Your task to perform on an android device: install app "Venmo" Image 0: 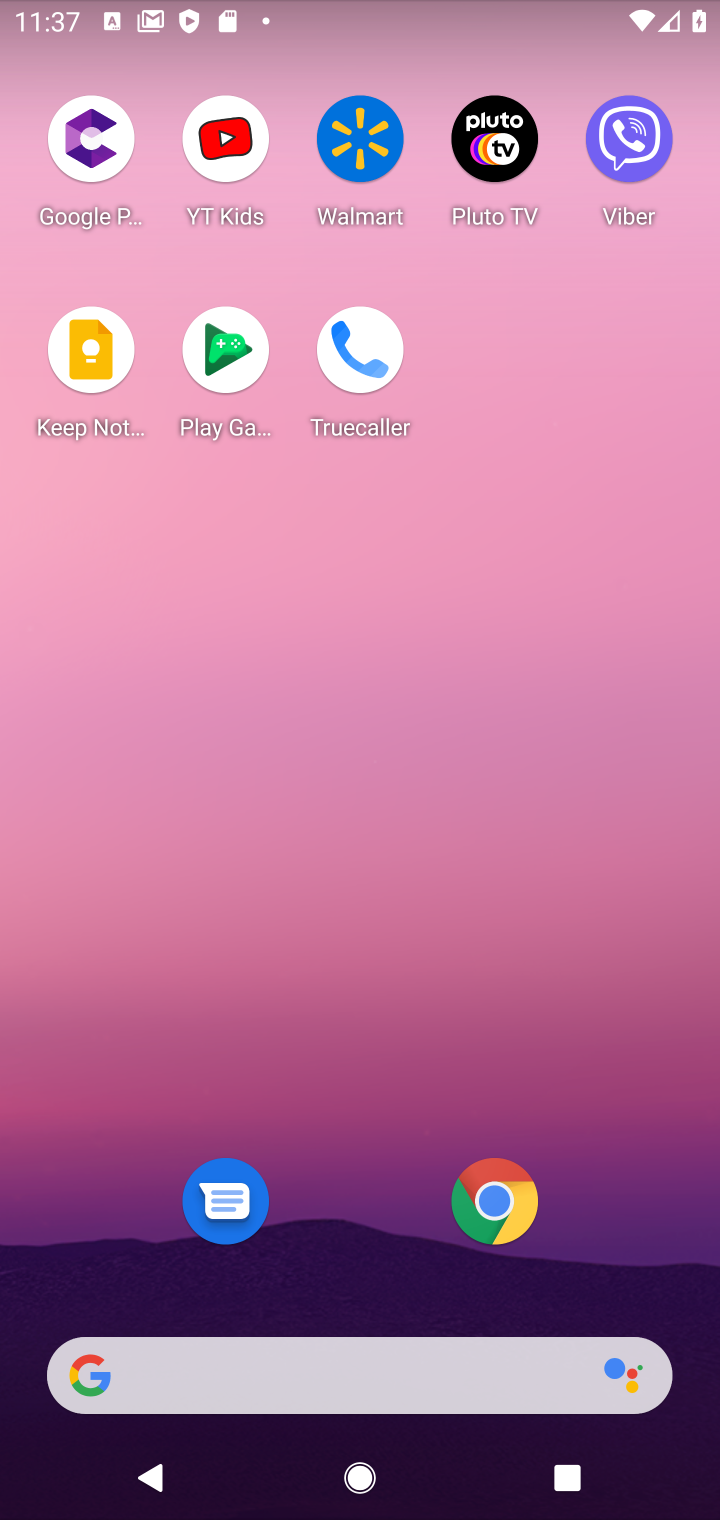
Step 0: drag from (323, 935) to (27, 59)
Your task to perform on an android device: install app "Venmo" Image 1: 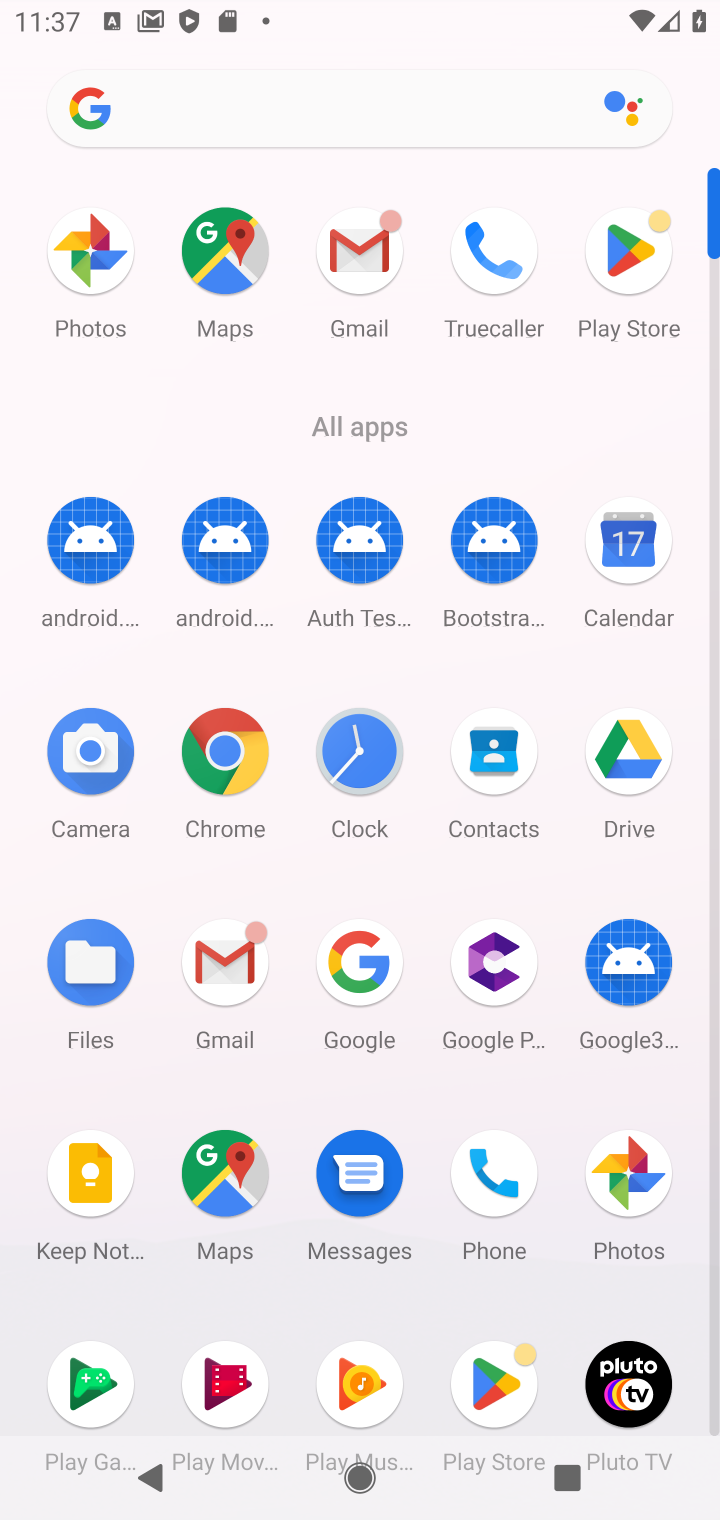
Step 1: click (630, 272)
Your task to perform on an android device: install app "Venmo" Image 2: 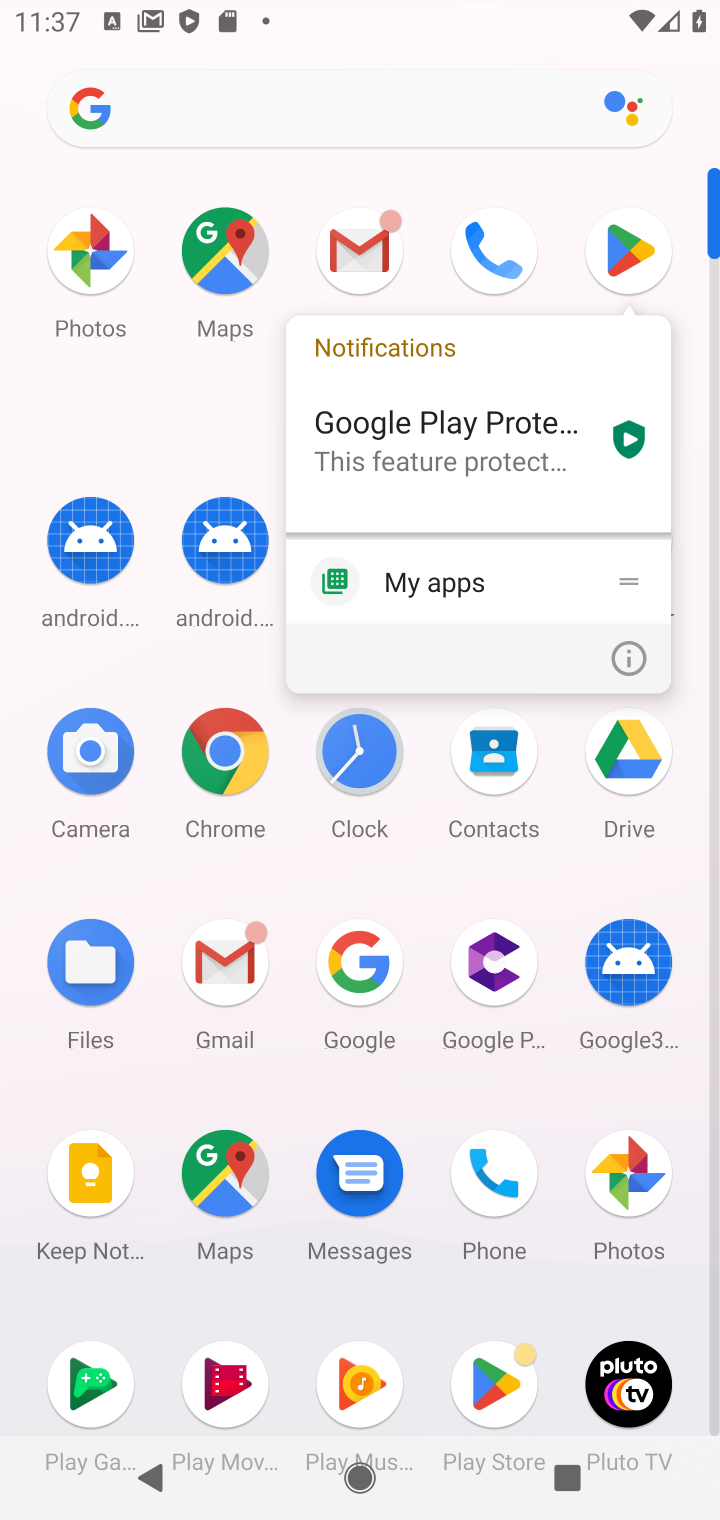
Step 2: click (624, 267)
Your task to perform on an android device: install app "Venmo" Image 3: 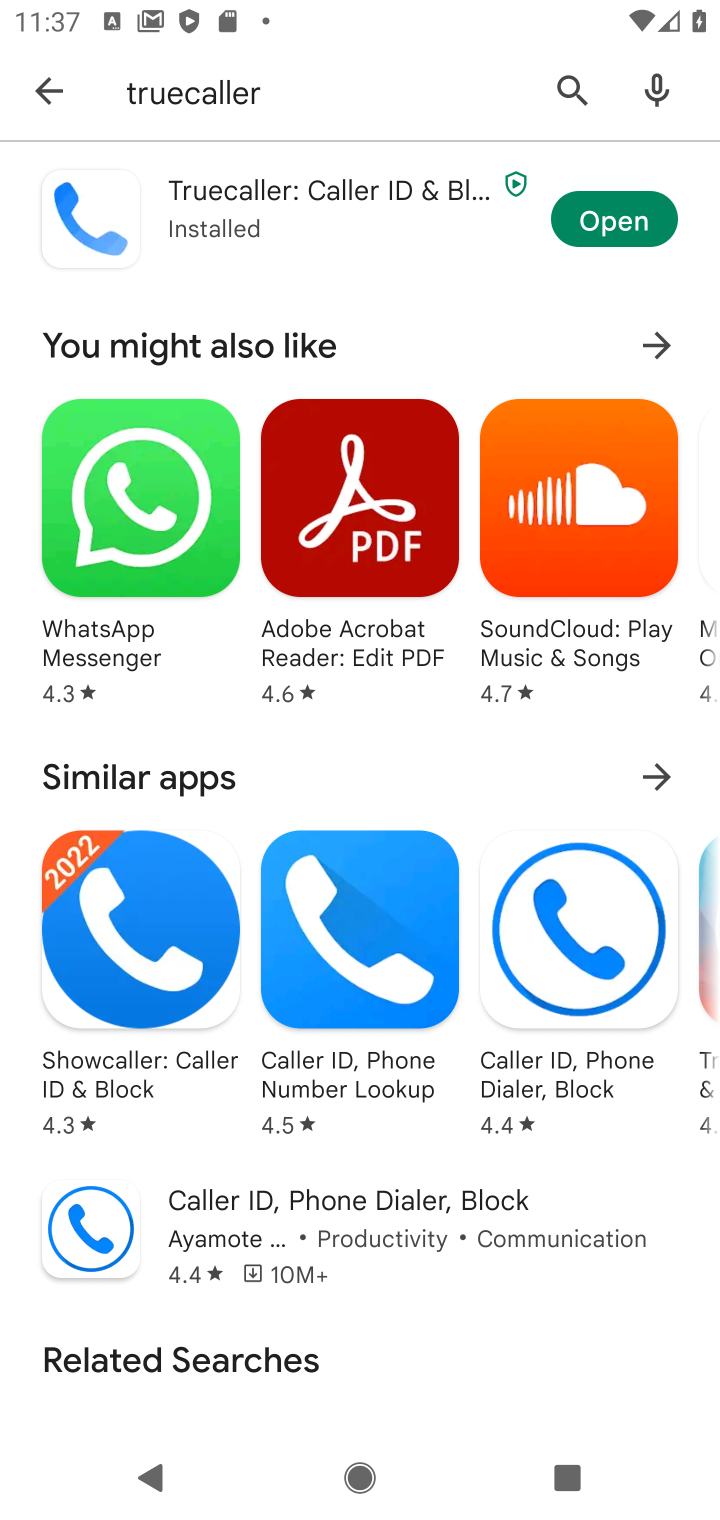
Step 3: click (624, 267)
Your task to perform on an android device: install app "Venmo" Image 4: 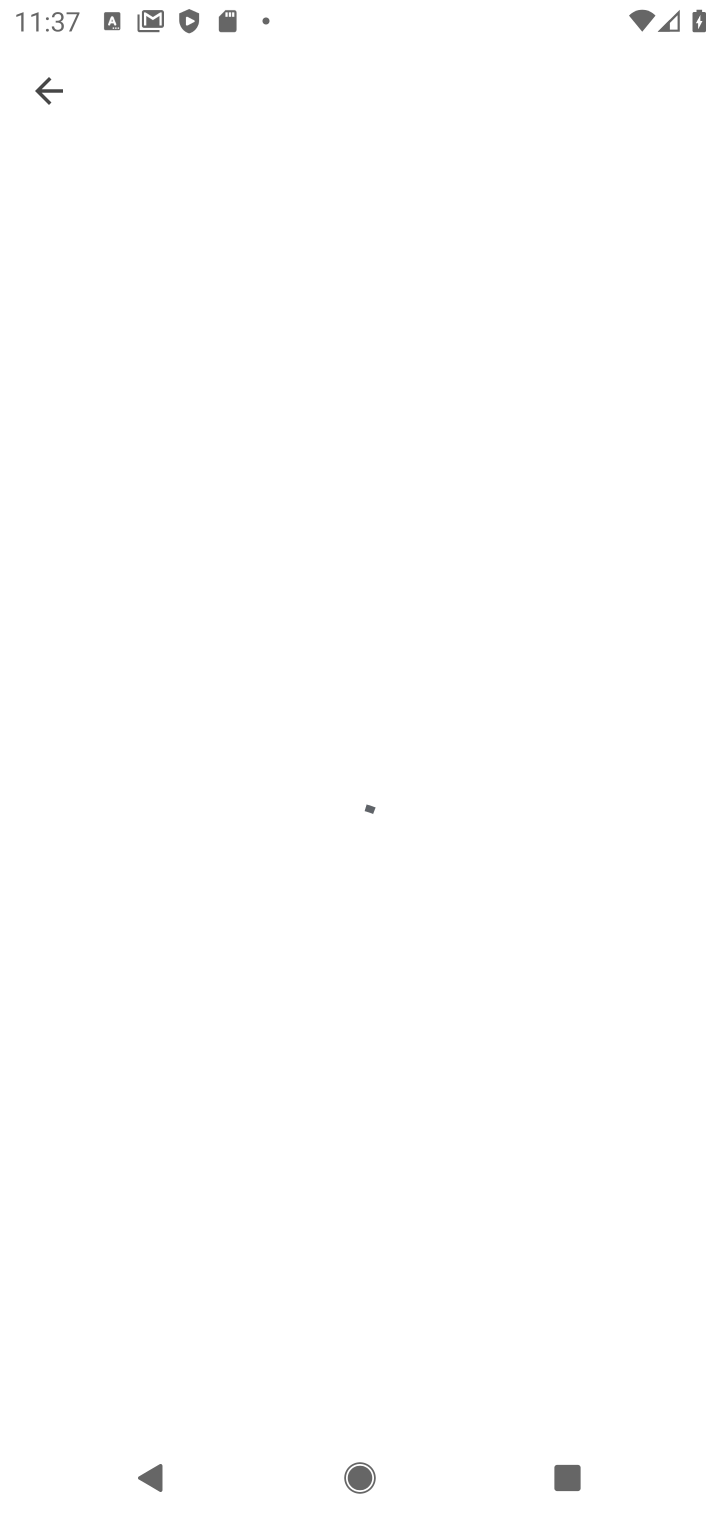
Step 4: click (282, 122)
Your task to perform on an android device: install app "Venmo" Image 5: 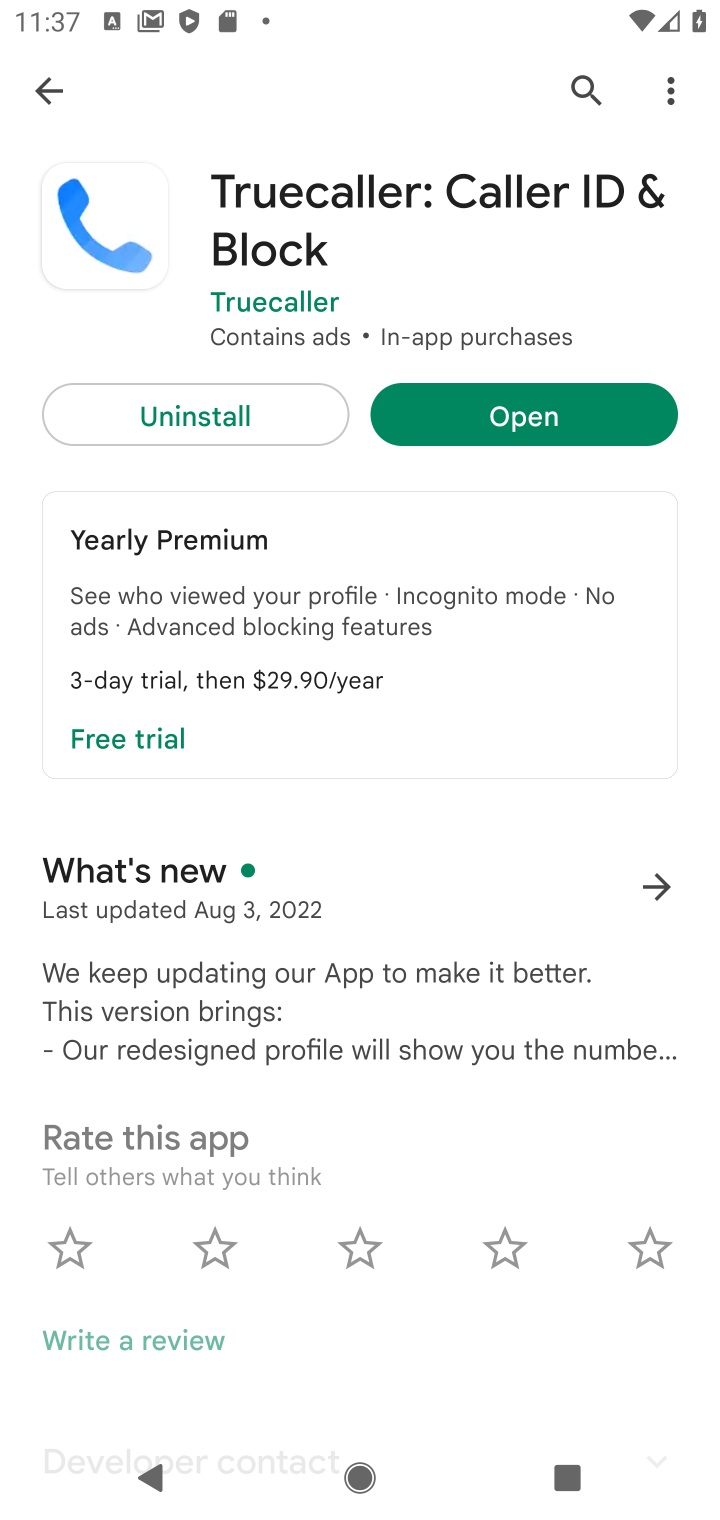
Step 5: click (37, 81)
Your task to perform on an android device: install app "Venmo" Image 6: 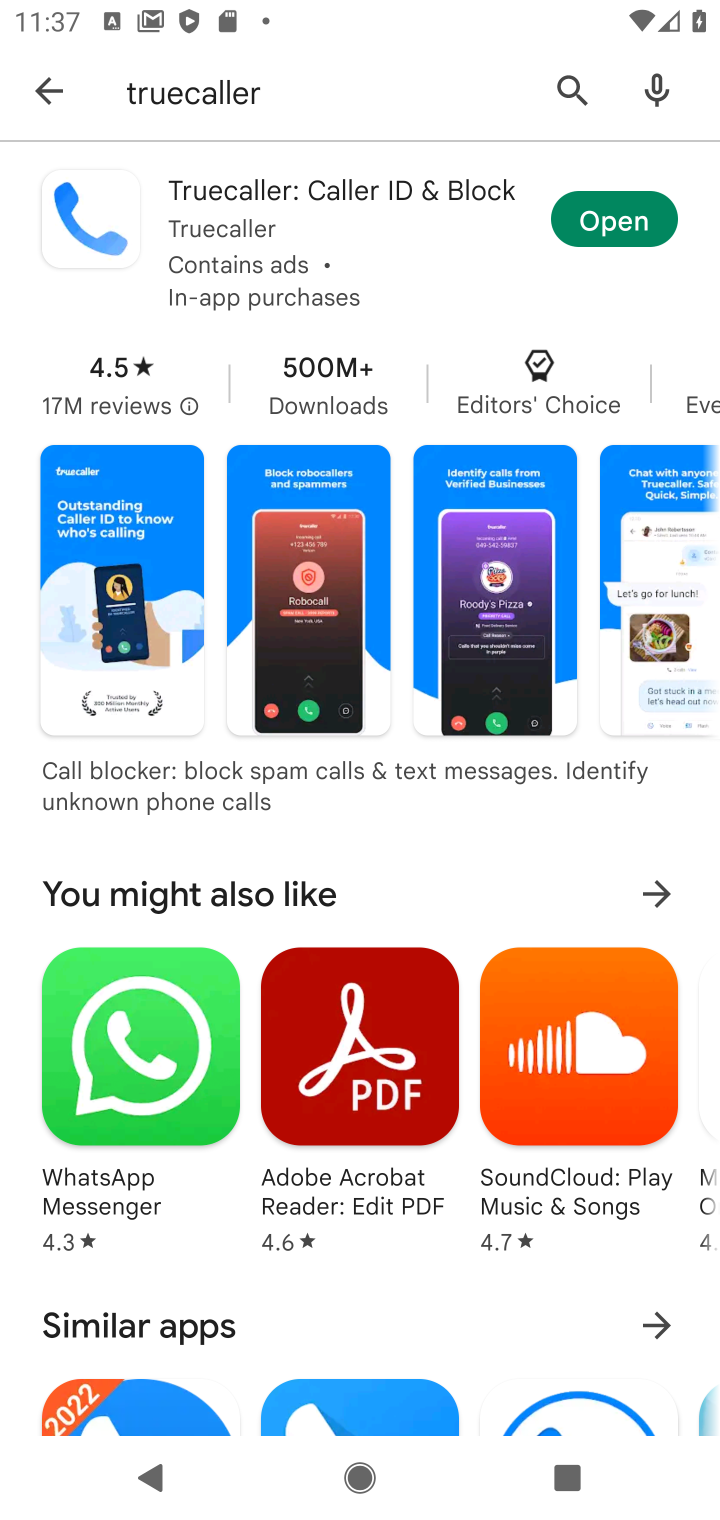
Step 6: click (296, 84)
Your task to perform on an android device: install app "Venmo" Image 7: 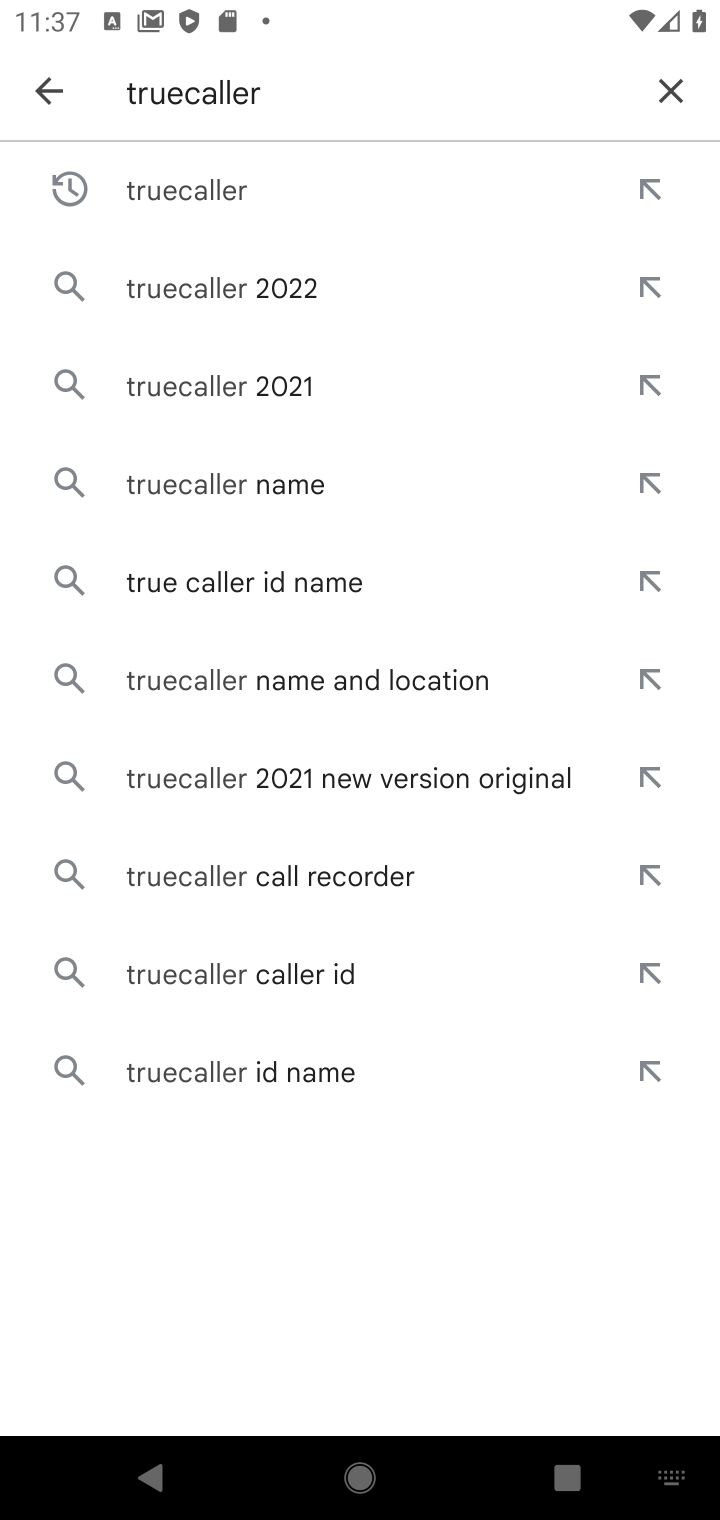
Step 7: click (673, 82)
Your task to perform on an android device: install app "Venmo" Image 8: 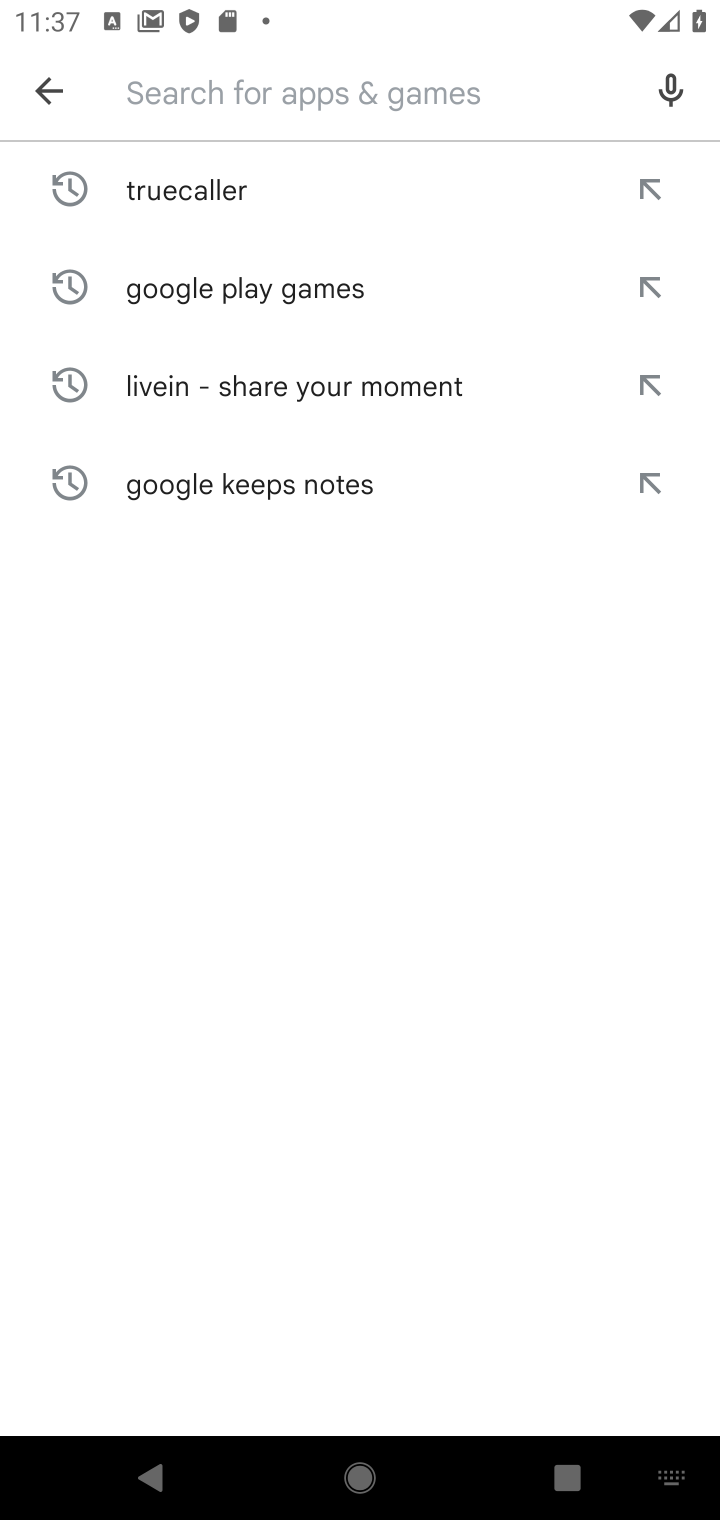
Step 8: type "Venmo"
Your task to perform on an android device: install app "Venmo" Image 9: 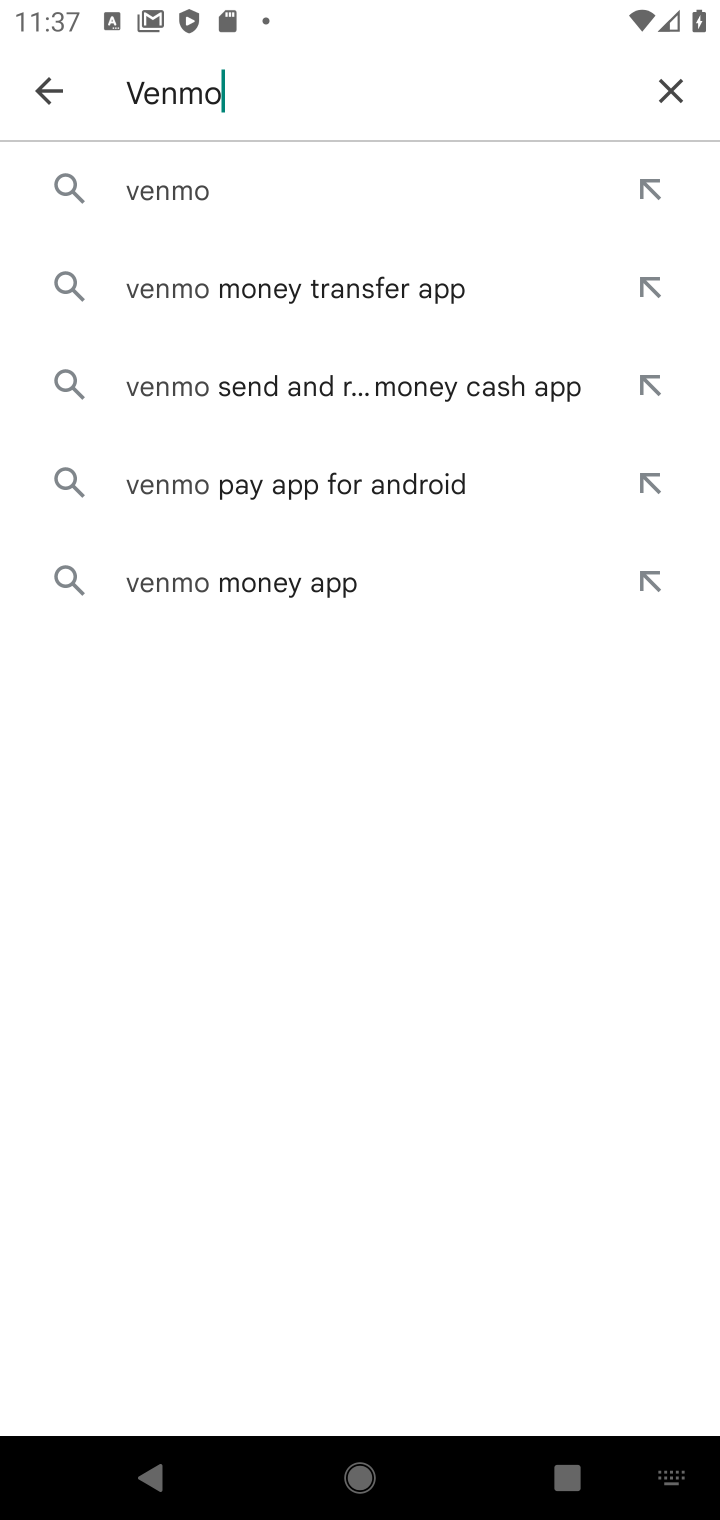
Step 9: click (155, 187)
Your task to perform on an android device: install app "Venmo" Image 10: 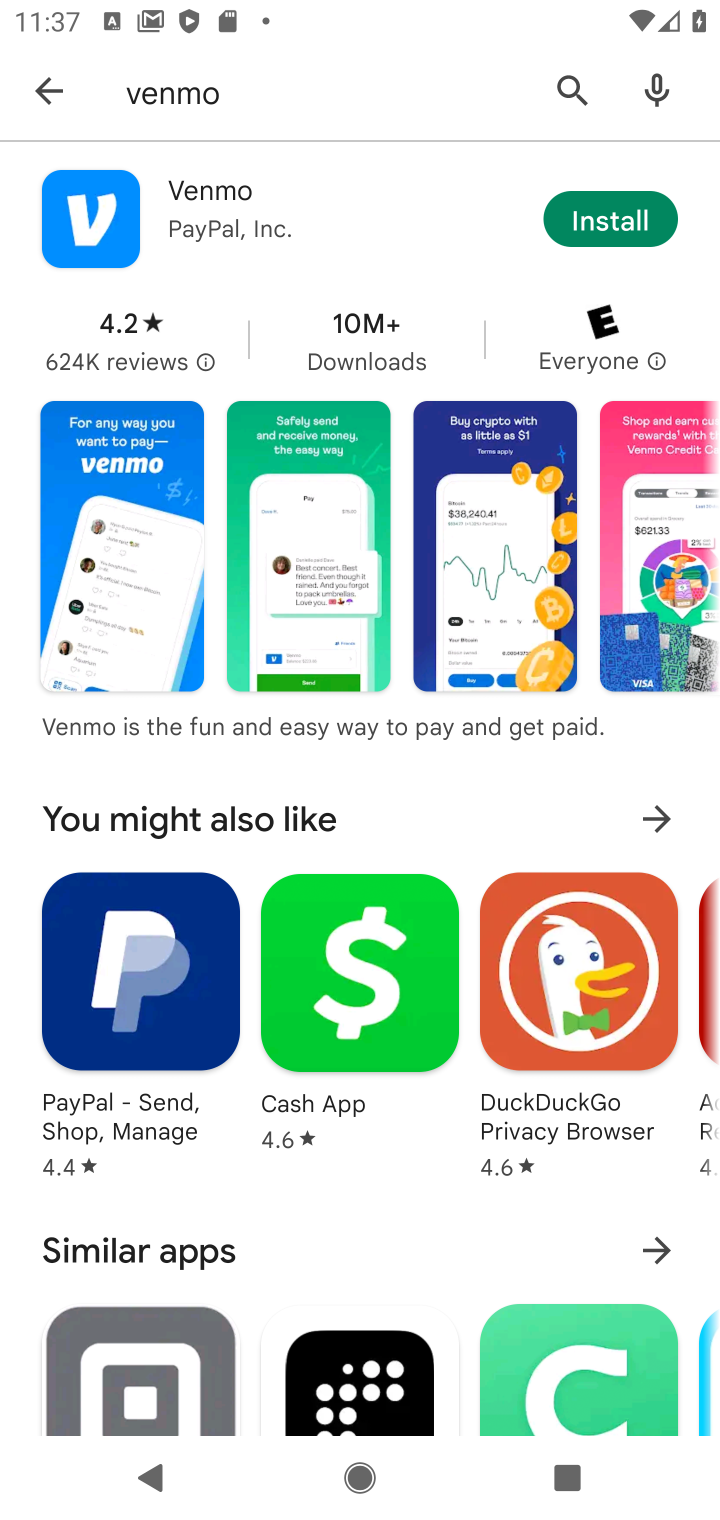
Step 10: click (614, 215)
Your task to perform on an android device: install app "Venmo" Image 11: 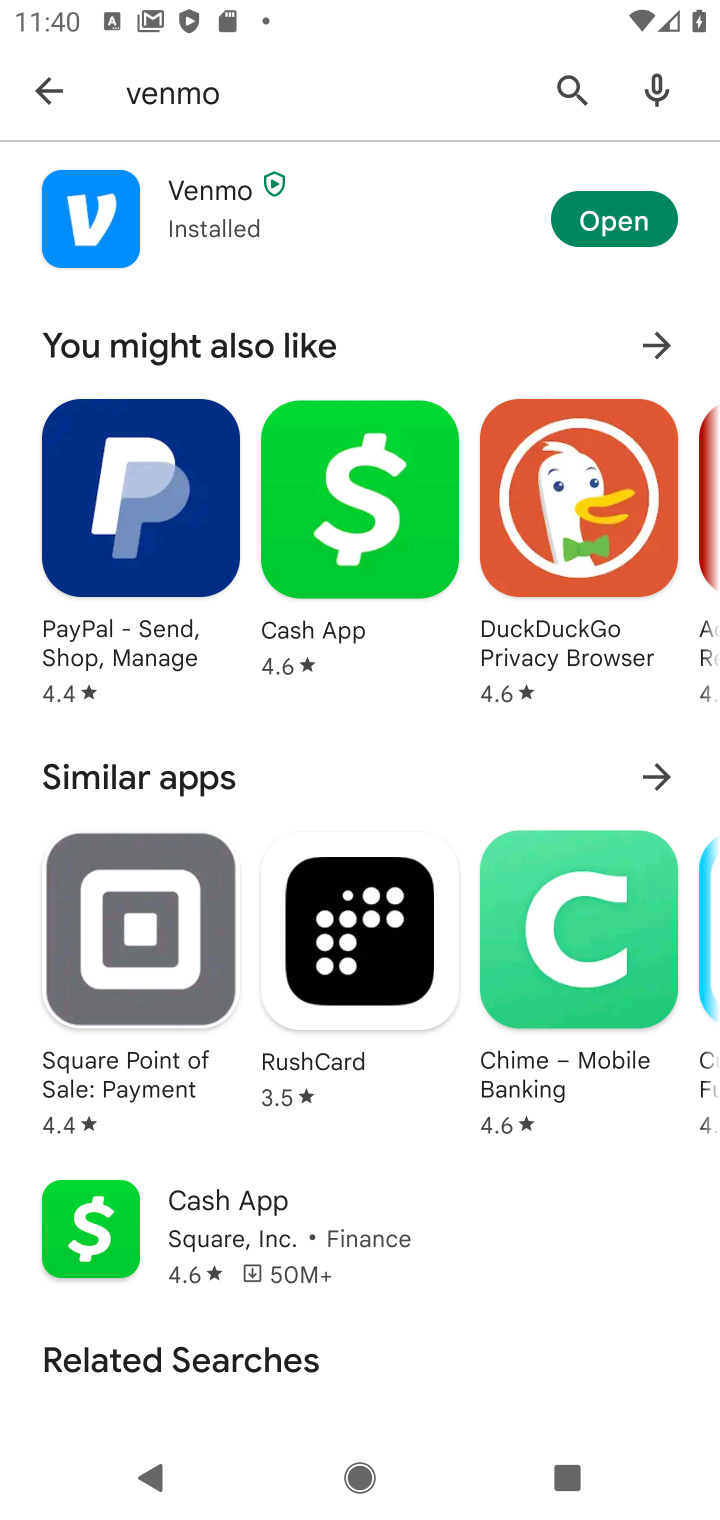
Step 11: task complete